Your task to perform on an android device: Show the shopping cart on newegg.com. Search for macbook pro 13 inch on newegg.com, select the first entry, add it to the cart, then select checkout. Image 0: 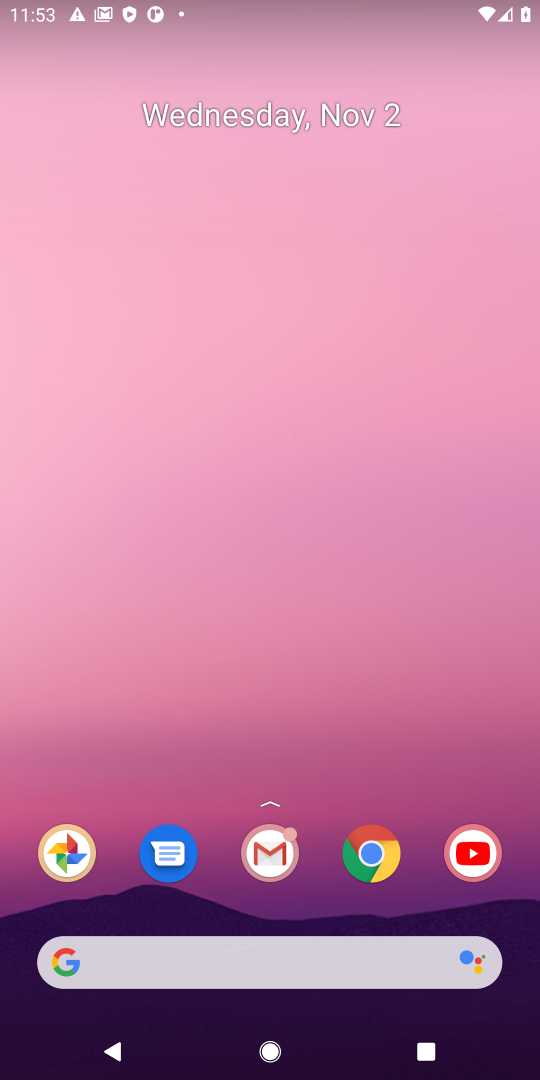
Step 0: click (374, 847)
Your task to perform on an android device: Show the shopping cart on newegg.com. Search for macbook pro 13 inch on newegg.com, select the first entry, add it to the cart, then select checkout. Image 1: 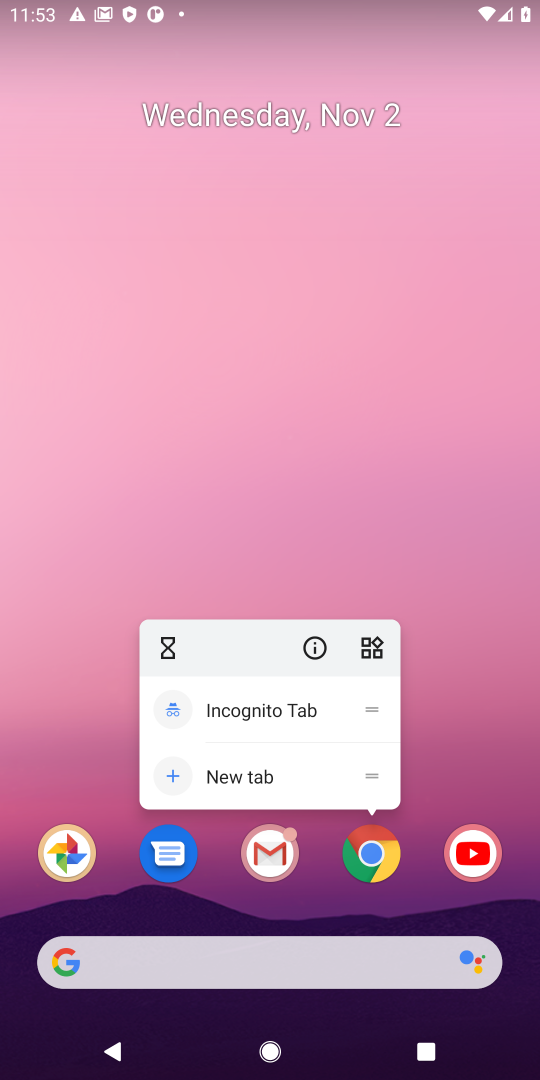
Step 1: click (366, 856)
Your task to perform on an android device: Show the shopping cart on newegg.com. Search for macbook pro 13 inch on newegg.com, select the first entry, add it to the cart, then select checkout. Image 2: 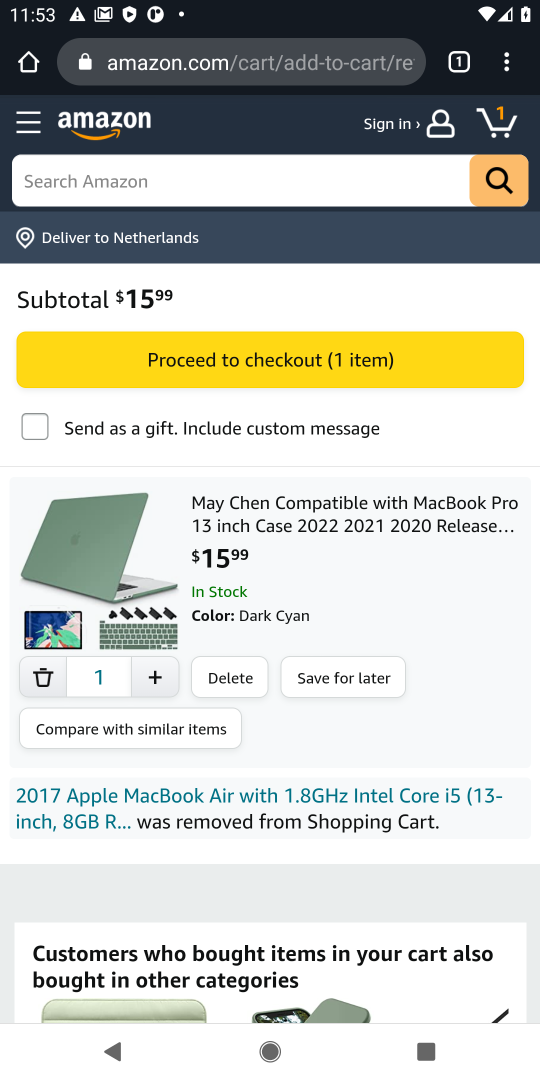
Step 2: click (268, 54)
Your task to perform on an android device: Show the shopping cart on newegg.com. Search for macbook pro 13 inch on newegg.com, select the first entry, add it to the cart, then select checkout. Image 3: 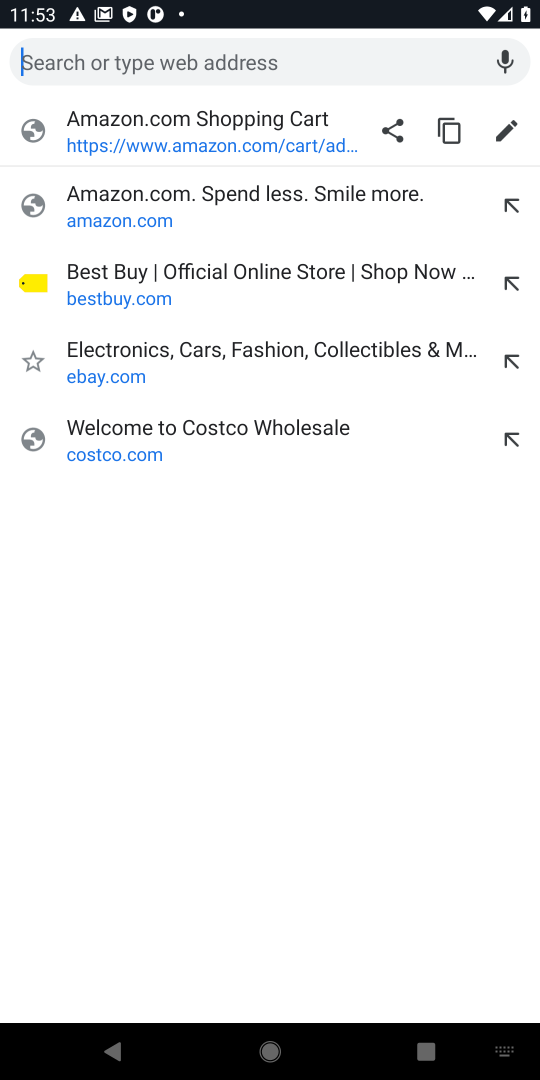
Step 3: type "newegg"
Your task to perform on an android device: Show the shopping cart on newegg.com. Search for macbook pro 13 inch on newegg.com, select the first entry, add it to the cart, then select checkout. Image 4: 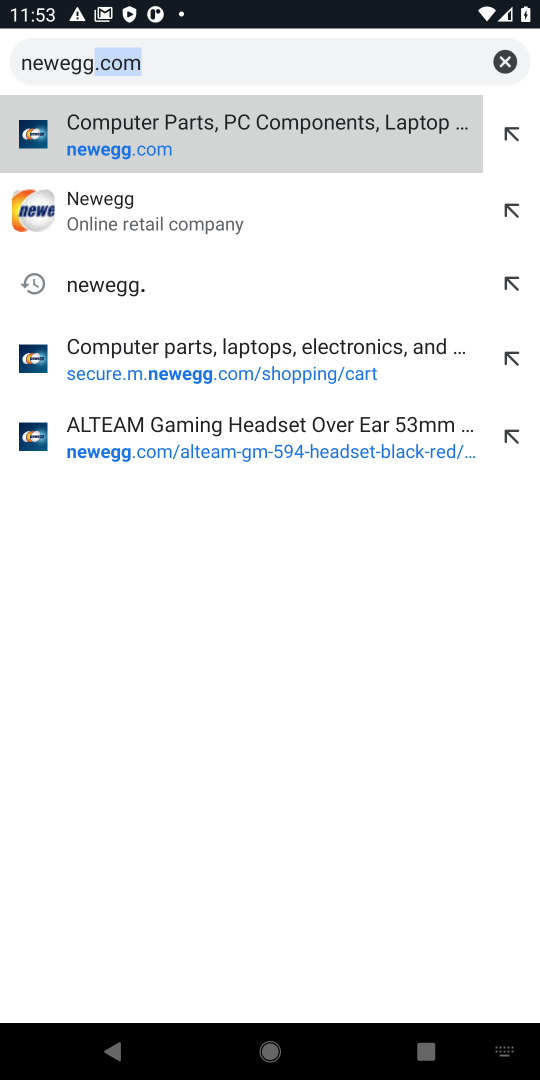
Step 4: press enter
Your task to perform on an android device: Show the shopping cart on newegg.com. Search for macbook pro 13 inch on newegg.com, select the first entry, add it to the cart, then select checkout. Image 5: 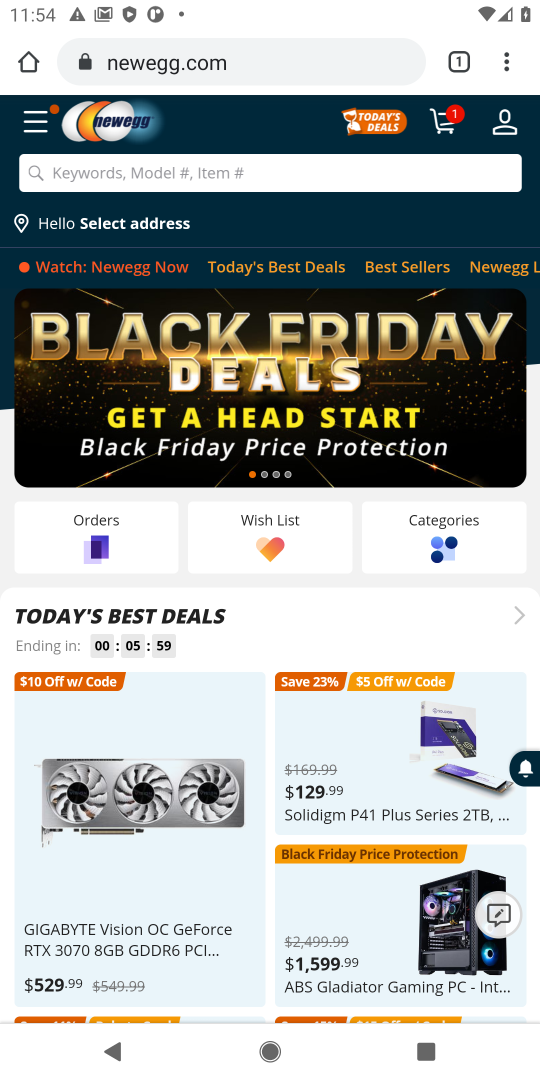
Step 5: click (237, 169)
Your task to perform on an android device: Show the shopping cart on newegg.com. Search for macbook pro 13 inch on newegg.com, select the first entry, add it to the cart, then select checkout. Image 6: 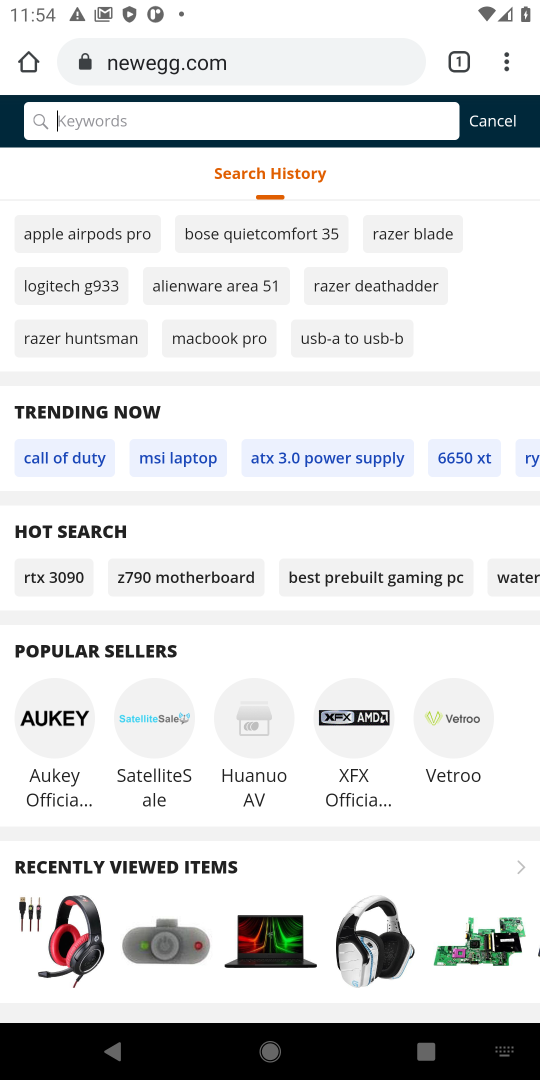
Step 6: type "macbook pro 13 inch"
Your task to perform on an android device: Show the shopping cart on newegg.com. Search for macbook pro 13 inch on newegg.com, select the first entry, add it to the cart, then select checkout. Image 7: 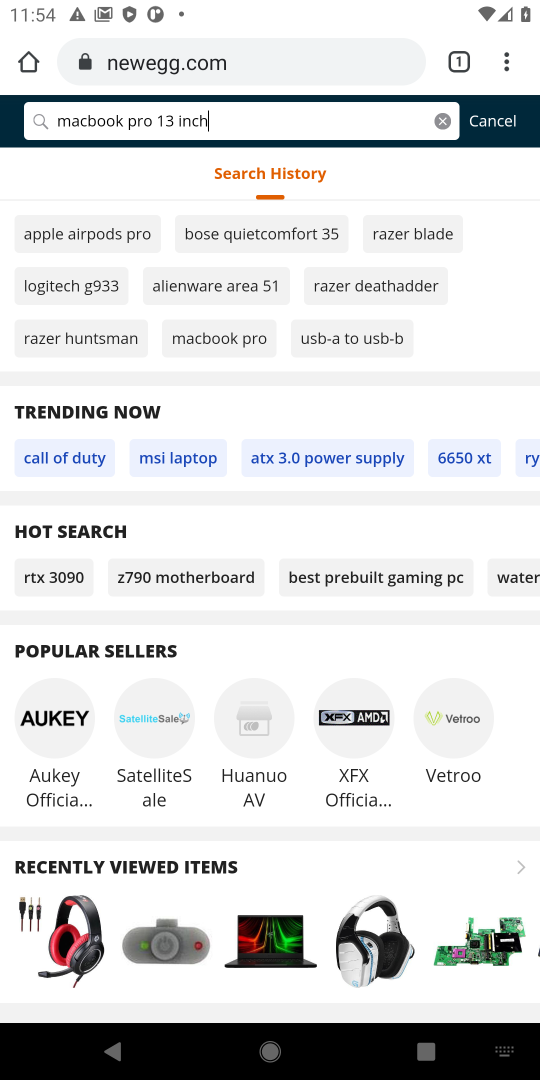
Step 7: press enter
Your task to perform on an android device: Show the shopping cart on newegg.com. Search for macbook pro 13 inch on newegg.com, select the first entry, add it to the cart, then select checkout. Image 8: 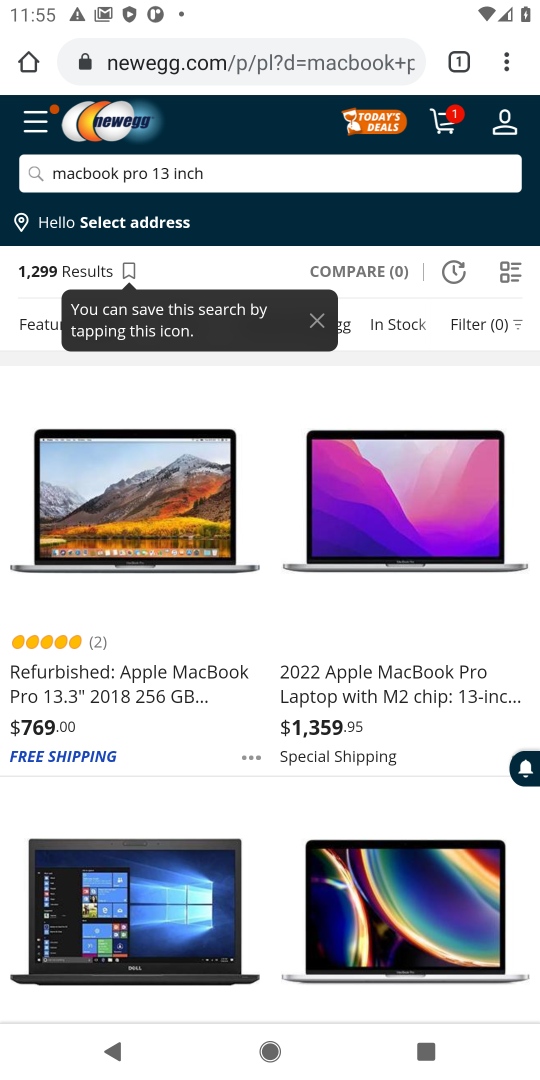
Step 8: task complete